Your task to perform on an android device: What's a goodrestaurant in Austin? Image 0: 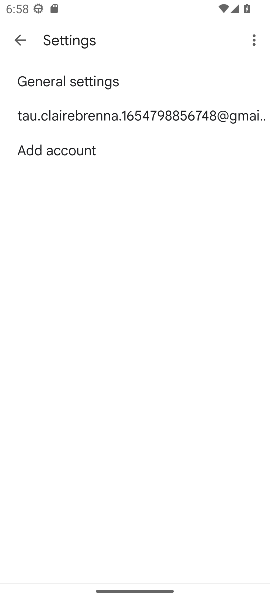
Step 0: press home button
Your task to perform on an android device: What's a goodrestaurant in Austin? Image 1: 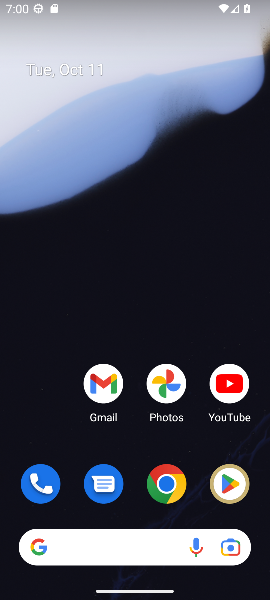
Step 1: drag from (87, 549) to (130, 5)
Your task to perform on an android device: What's a goodrestaurant in Austin? Image 2: 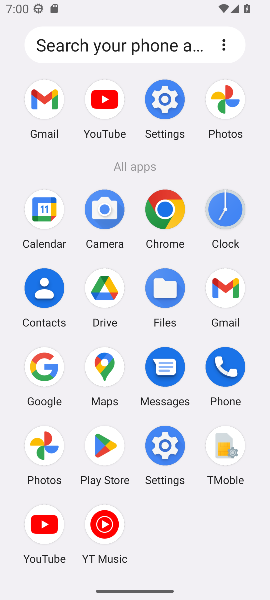
Step 2: click (163, 214)
Your task to perform on an android device: What's a goodrestaurant in Austin? Image 3: 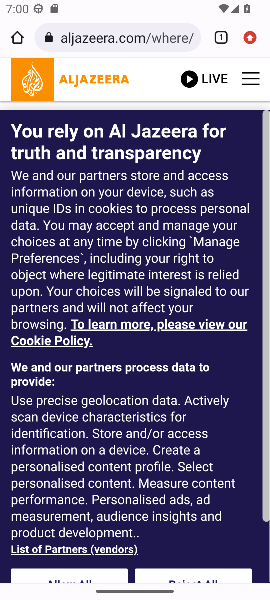
Step 3: click (133, 35)
Your task to perform on an android device: What's a goodrestaurant in Austin? Image 4: 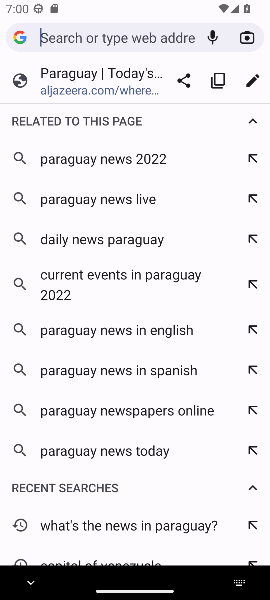
Step 4: type "What's a goodrestaurant in Austin?"
Your task to perform on an android device: What's a goodrestaurant in Austin? Image 5: 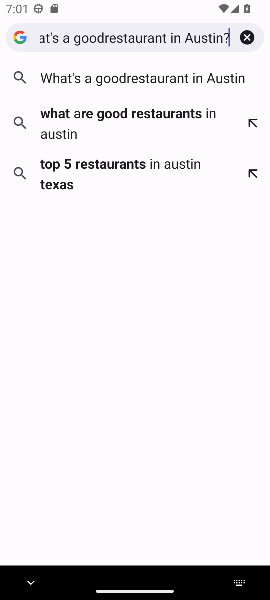
Step 5: press enter
Your task to perform on an android device: What's a goodrestaurant in Austin? Image 6: 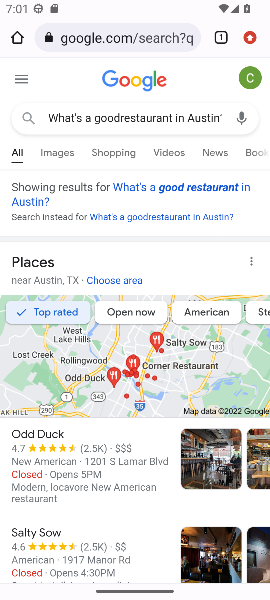
Step 6: task complete